Your task to perform on an android device: search for starred emails in the gmail app Image 0: 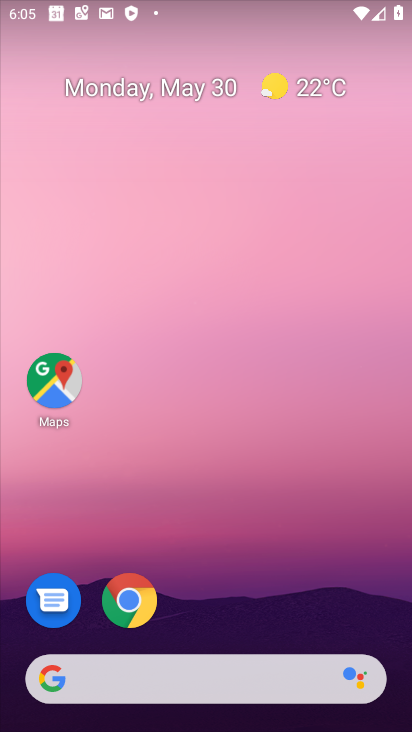
Step 0: press home button
Your task to perform on an android device: search for starred emails in the gmail app Image 1: 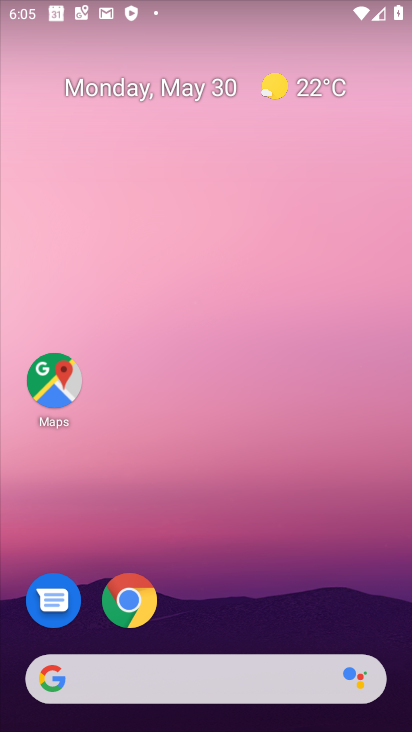
Step 1: drag from (225, 616) to (225, 191)
Your task to perform on an android device: search for starred emails in the gmail app Image 2: 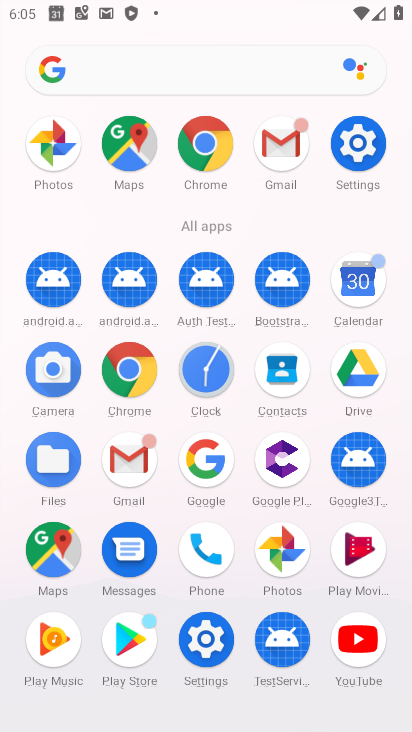
Step 2: click (283, 155)
Your task to perform on an android device: search for starred emails in the gmail app Image 3: 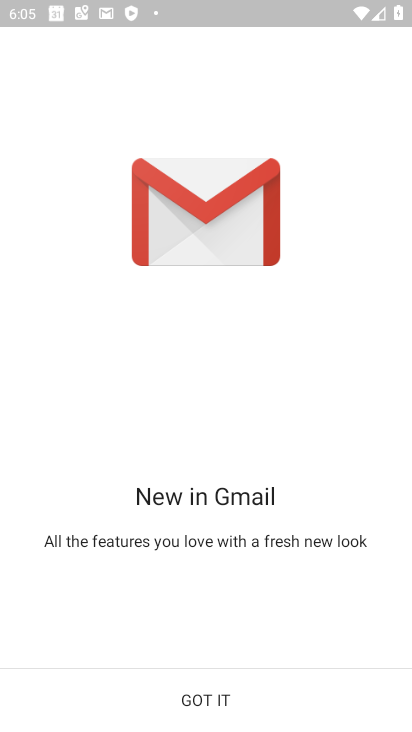
Step 3: click (144, 678)
Your task to perform on an android device: search for starred emails in the gmail app Image 4: 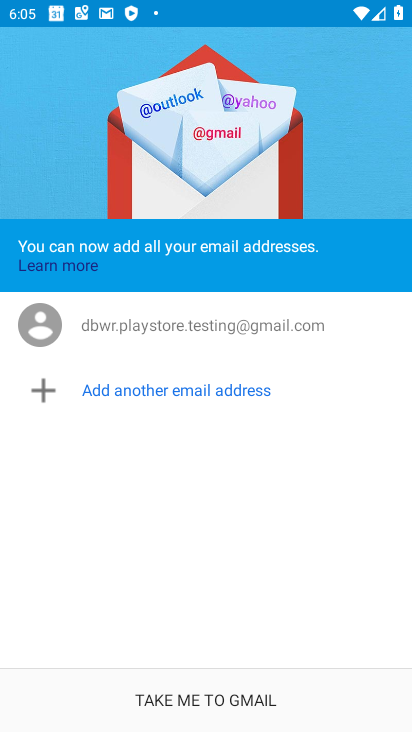
Step 4: click (196, 700)
Your task to perform on an android device: search for starred emails in the gmail app Image 5: 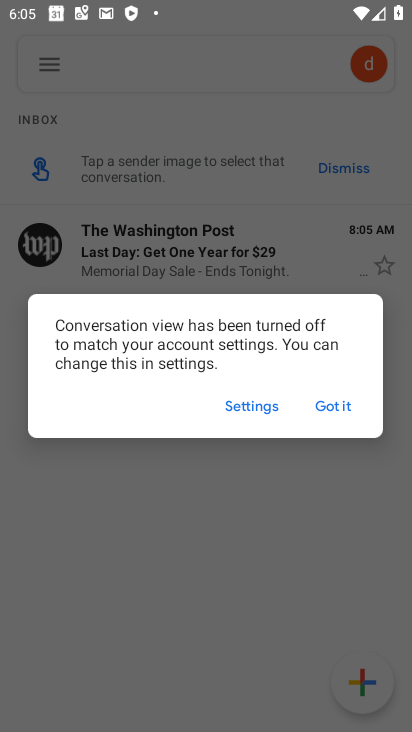
Step 5: click (345, 414)
Your task to perform on an android device: search for starred emails in the gmail app Image 6: 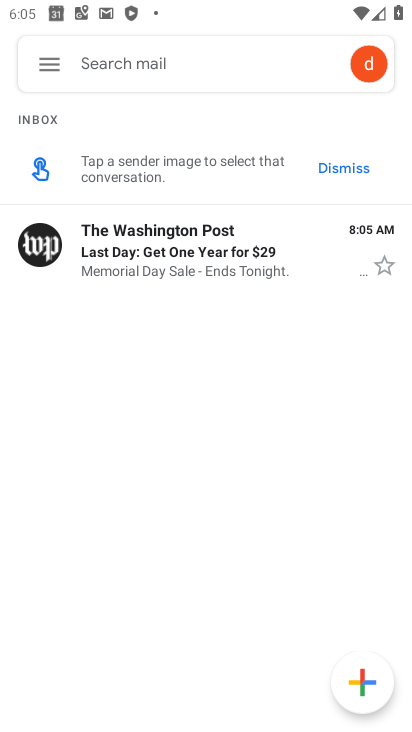
Step 6: click (41, 62)
Your task to perform on an android device: search for starred emails in the gmail app Image 7: 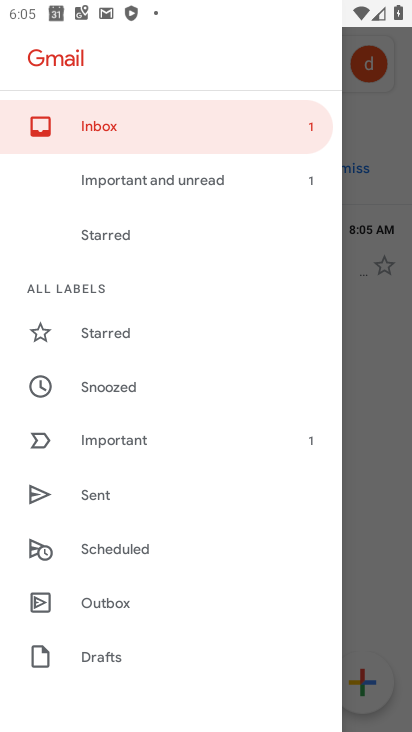
Step 7: click (104, 336)
Your task to perform on an android device: search for starred emails in the gmail app Image 8: 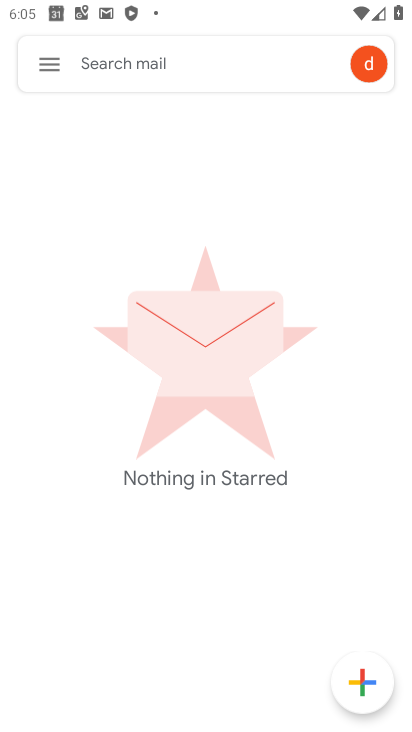
Step 8: task complete